Your task to perform on an android device: change the clock display to digital Image 0: 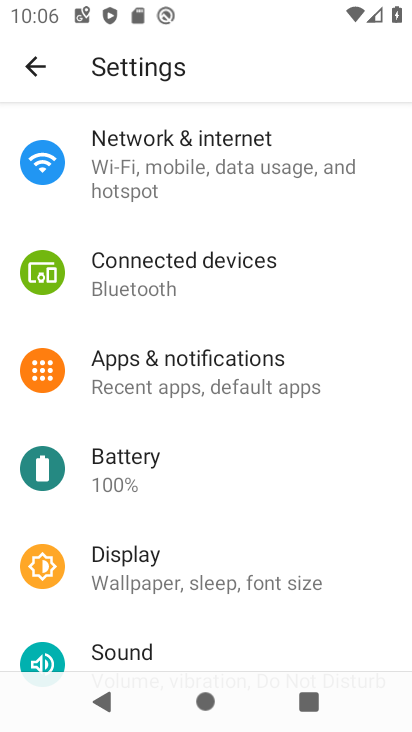
Step 0: press home button
Your task to perform on an android device: change the clock display to digital Image 1: 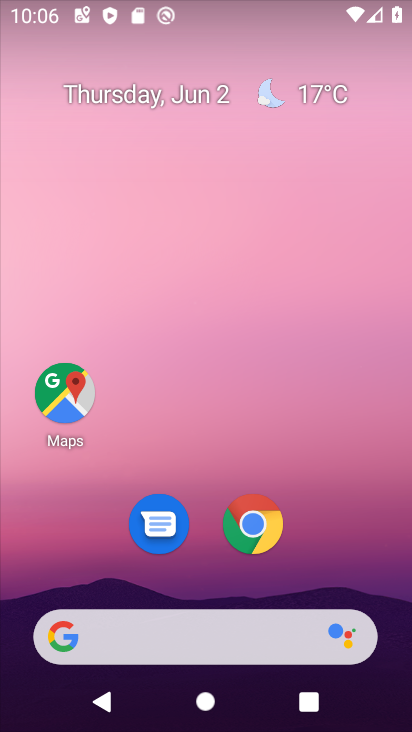
Step 1: drag from (190, 494) to (233, 11)
Your task to perform on an android device: change the clock display to digital Image 2: 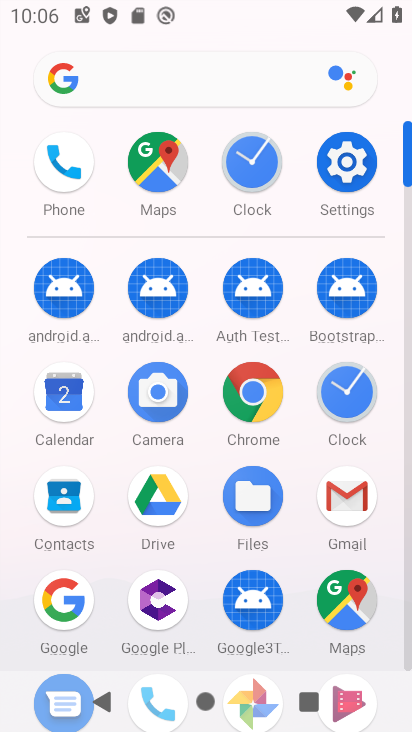
Step 2: click (253, 169)
Your task to perform on an android device: change the clock display to digital Image 3: 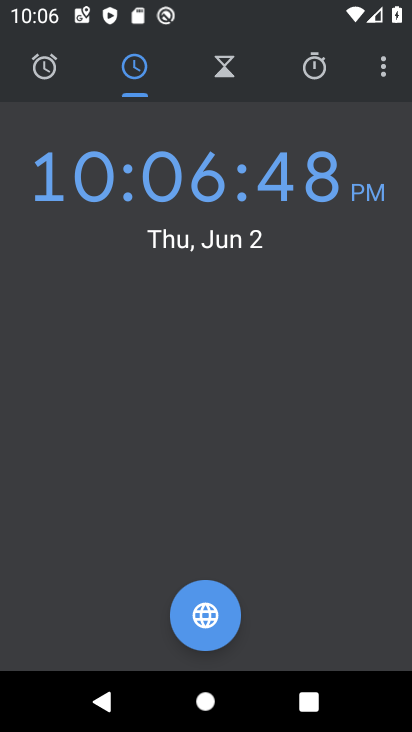
Step 3: task complete